Your task to perform on an android device: Go to Amazon Image 0: 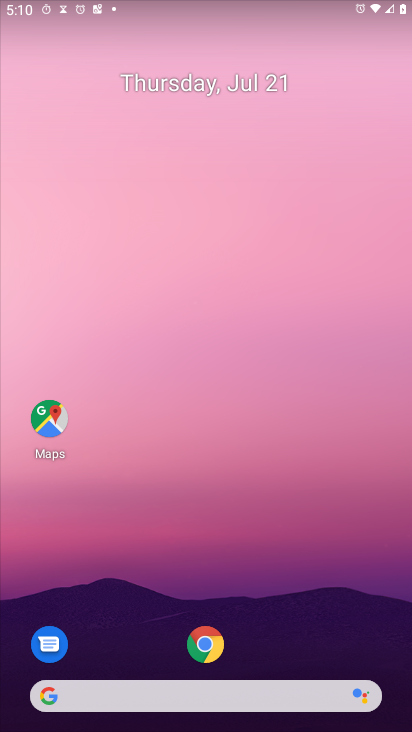
Step 0: press home button
Your task to perform on an android device: Go to Amazon Image 1: 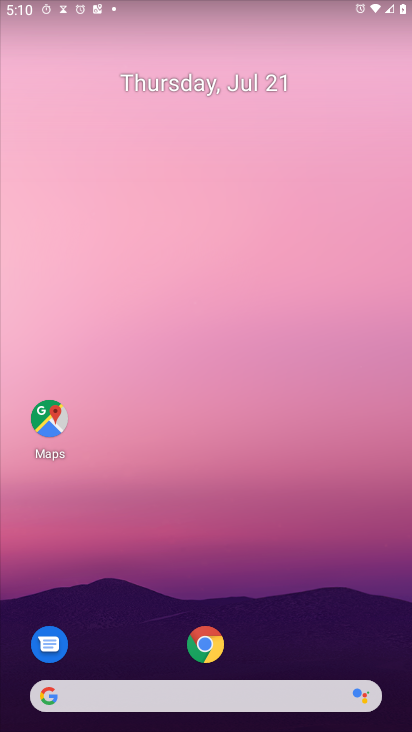
Step 1: click (48, 695)
Your task to perform on an android device: Go to Amazon Image 2: 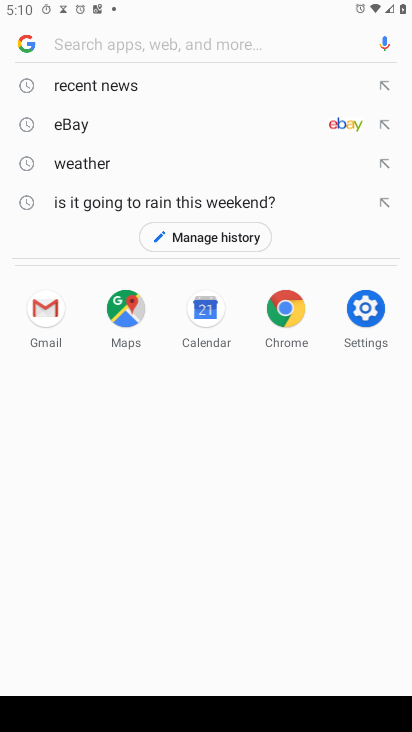
Step 2: type "Amazon"
Your task to perform on an android device: Go to Amazon Image 3: 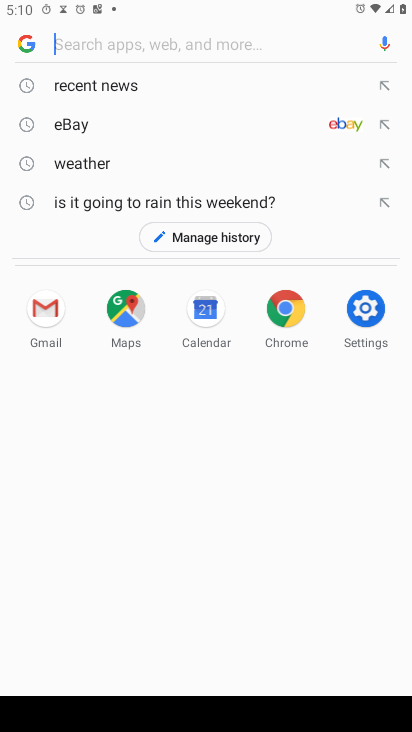
Step 3: click (73, 43)
Your task to perform on an android device: Go to Amazon Image 4: 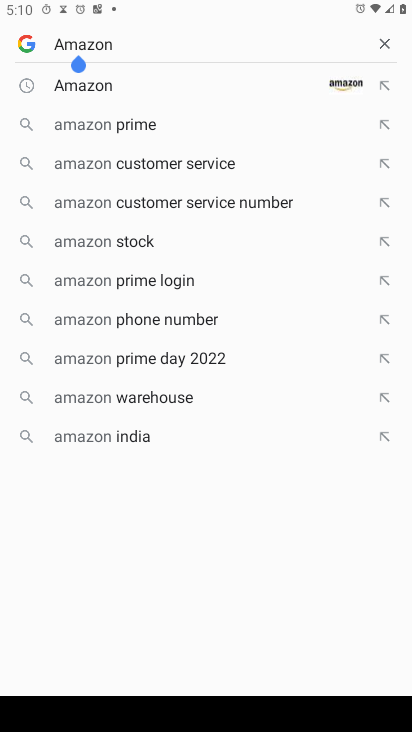
Step 4: click (339, 82)
Your task to perform on an android device: Go to Amazon Image 5: 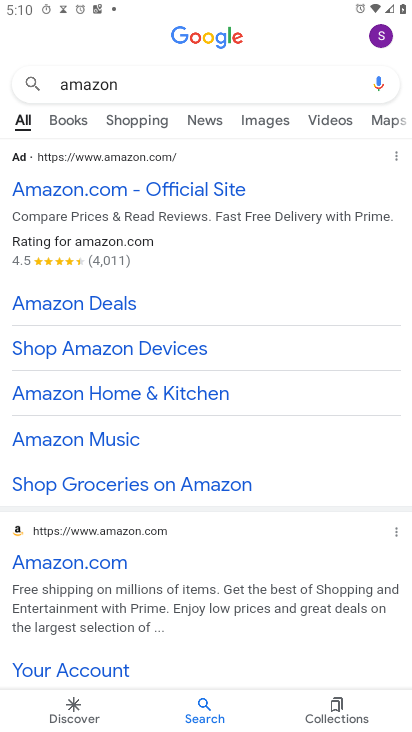
Step 5: click (86, 565)
Your task to perform on an android device: Go to Amazon Image 6: 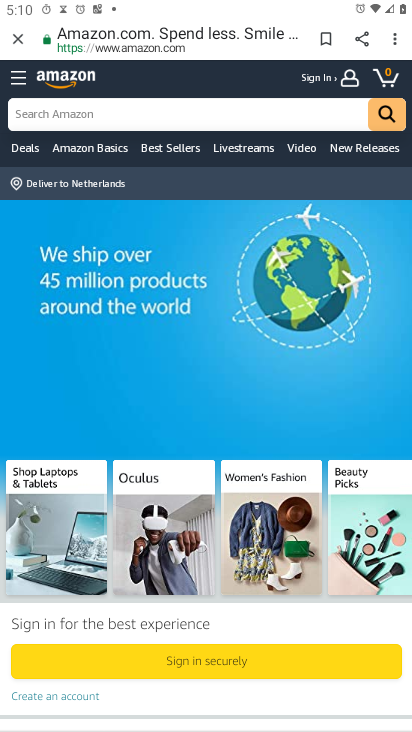
Step 6: task complete